Your task to perform on an android device: What's the weather today? Image 0: 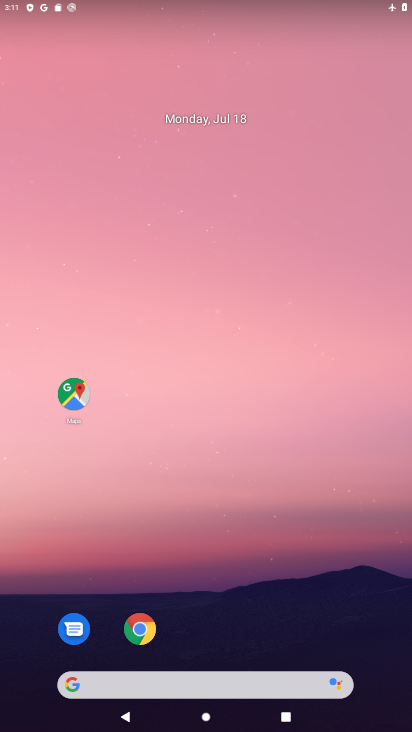
Step 0: click (197, 679)
Your task to perform on an android device: What's the weather today? Image 1: 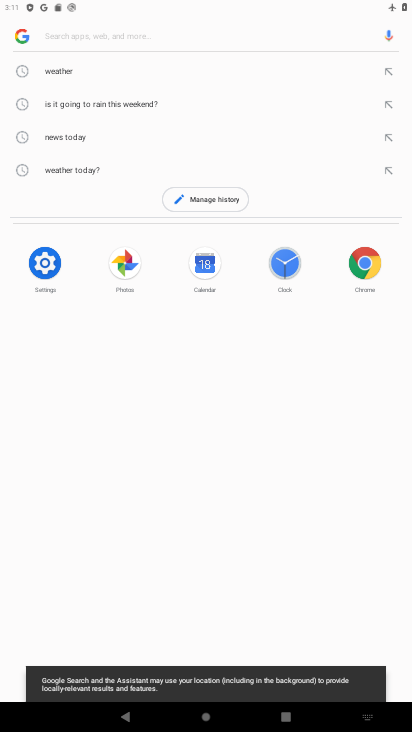
Step 1: click (52, 61)
Your task to perform on an android device: What's the weather today? Image 2: 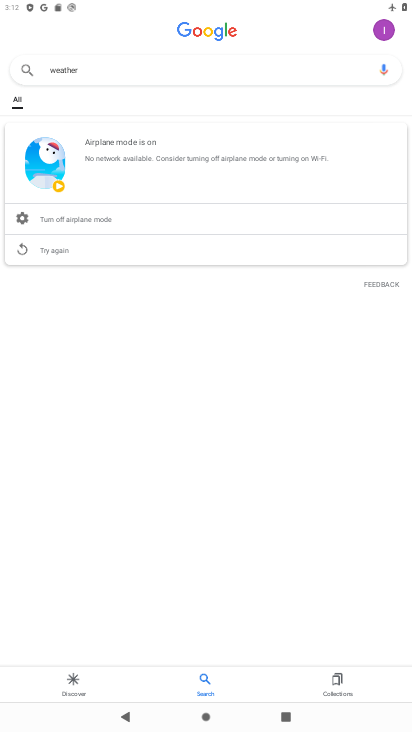
Step 2: task complete